Your task to perform on an android device: Open the phone app and click the voicemail tab. Image 0: 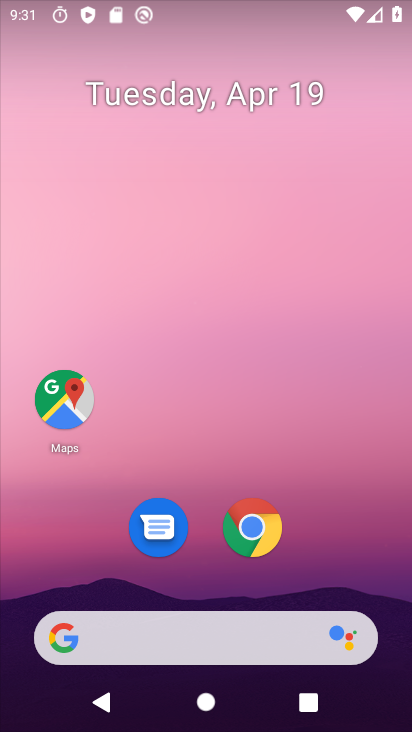
Step 0: drag from (292, 658) to (313, 157)
Your task to perform on an android device: Open the phone app and click the voicemail tab. Image 1: 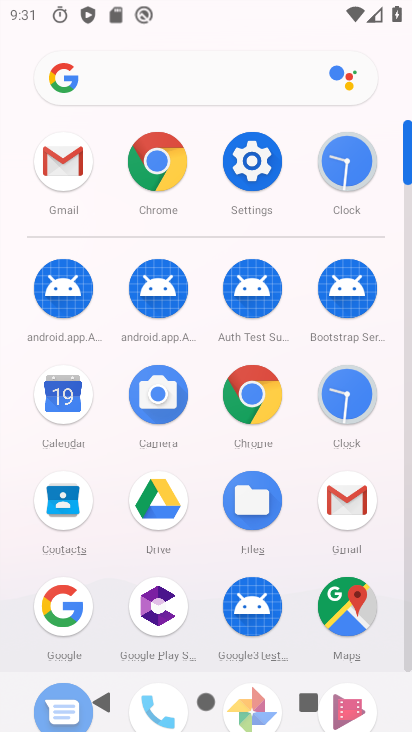
Step 1: drag from (197, 547) to (204, 368)
Your task to perform on an android device: Open the phone app and click the voicemail tab. Image 2: 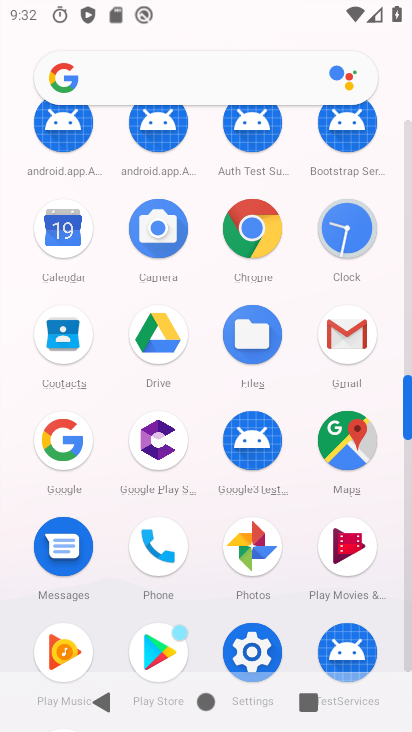
Step 2: click (148, 547)
Your task to perform on an android device: Open the phone app and click the voicemail tab. Image 3: 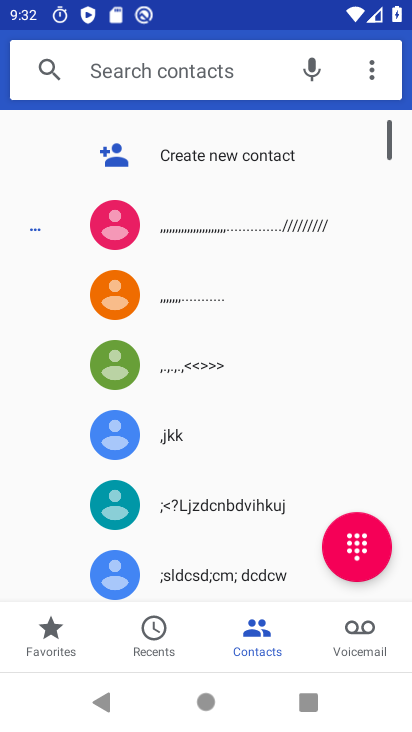
Step 3: click (354, 632)
Your task to perform on an android device: Open the phone app and click the voicemail tab. Image 4: 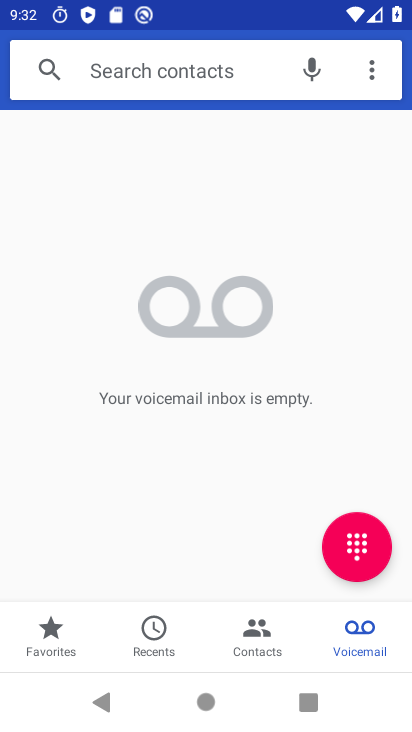
Step 4: task complete